Your task to perform on an android device: change the clock display to show seconds Image 0: 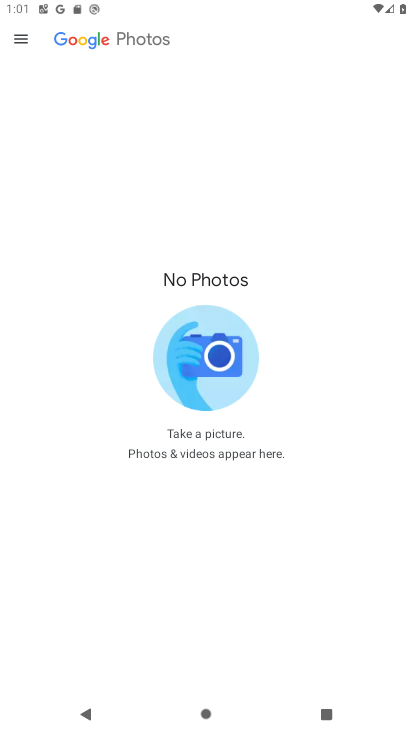
Step 0: press home button
Your task to perform on an android device: change the clock display to show seconds Image 1: 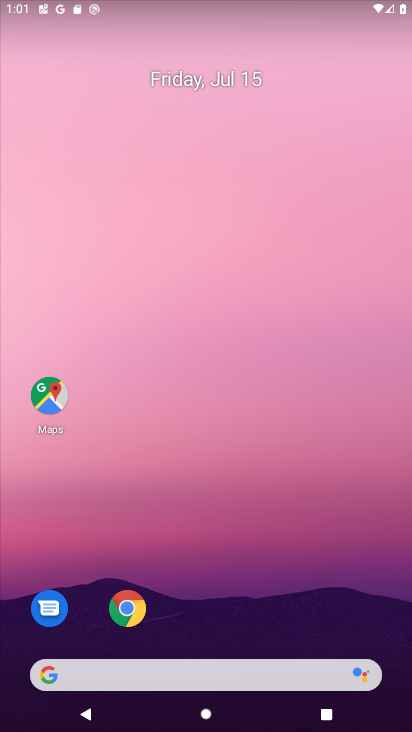
Step 1: drag from (247, 609) to (164, 205)
Your task to perform on an android device: change the clock display to show seconds Image 2: 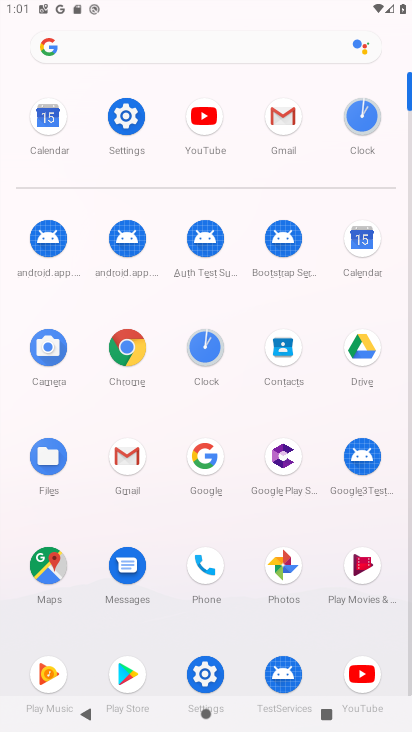
Step 2: click (200, 346)
Your task to perform on an android device: change the clock display to show seconds Image 3: 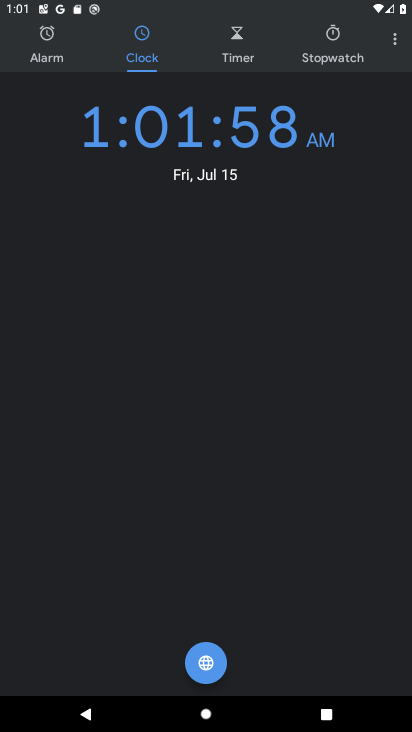
Step 3: click (394, 42)
Your task to perform on an android device: change the clock display to show seconds Image 4: 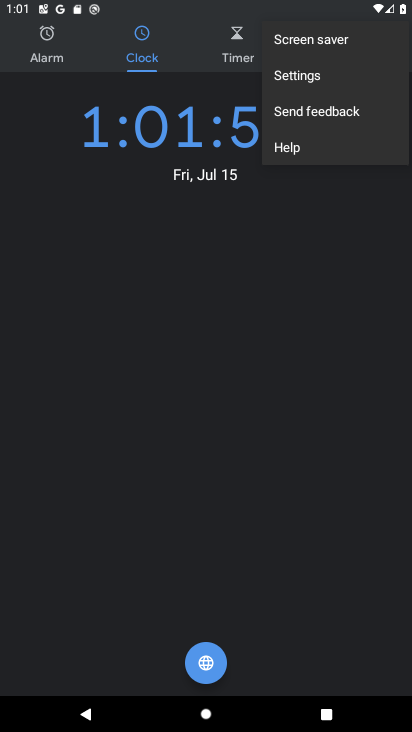
Step 4: click (308, 68)
Your task to perform on an android device: change the clock display to show seconds Image 5: 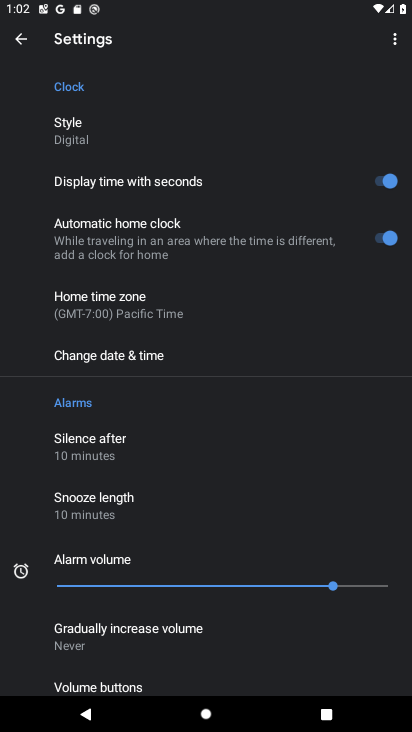
Step 5: task complete